Your task to perform on an android device: Search for Italian restaurants on Maps Image 0: 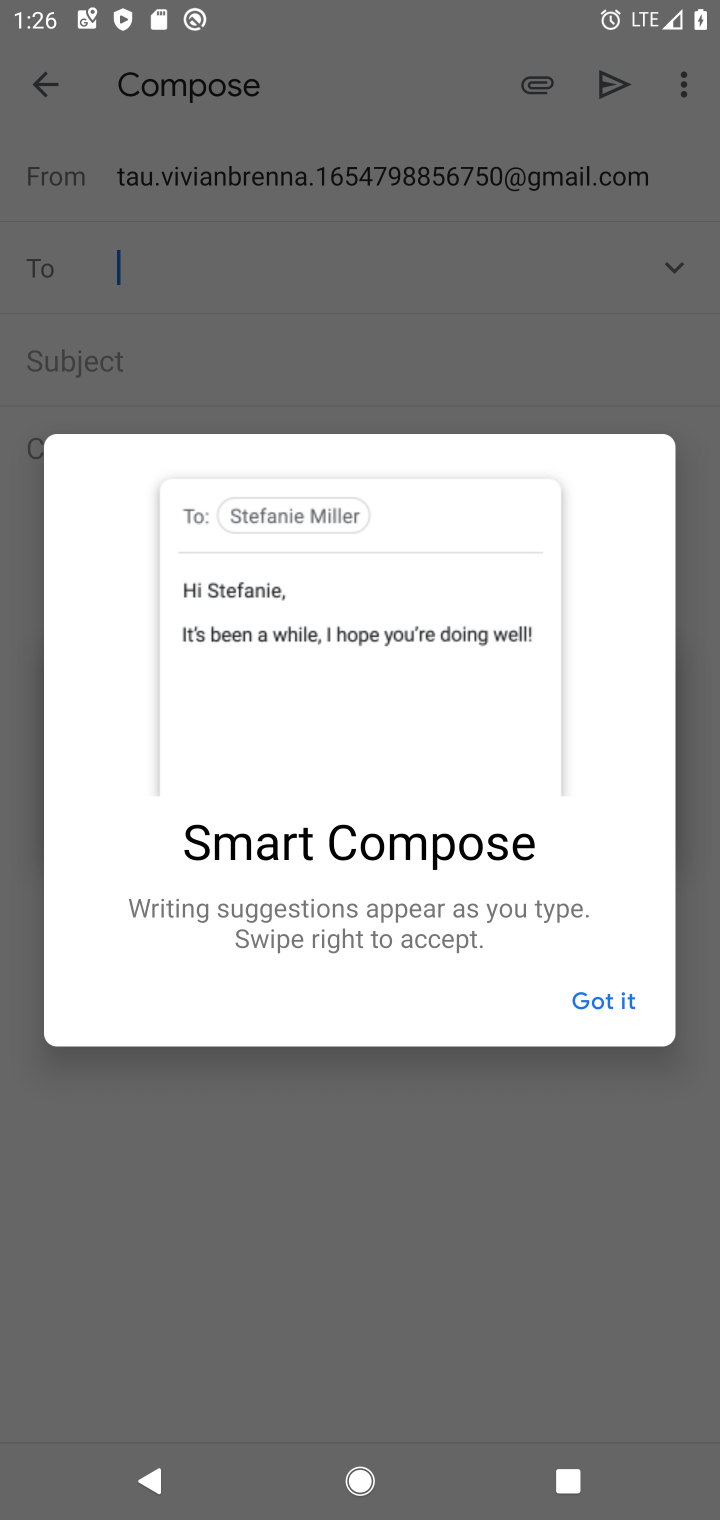
Step 0: press home button
Your task to perform on an android device: Search for Italian restaurants on Maps Image 1: 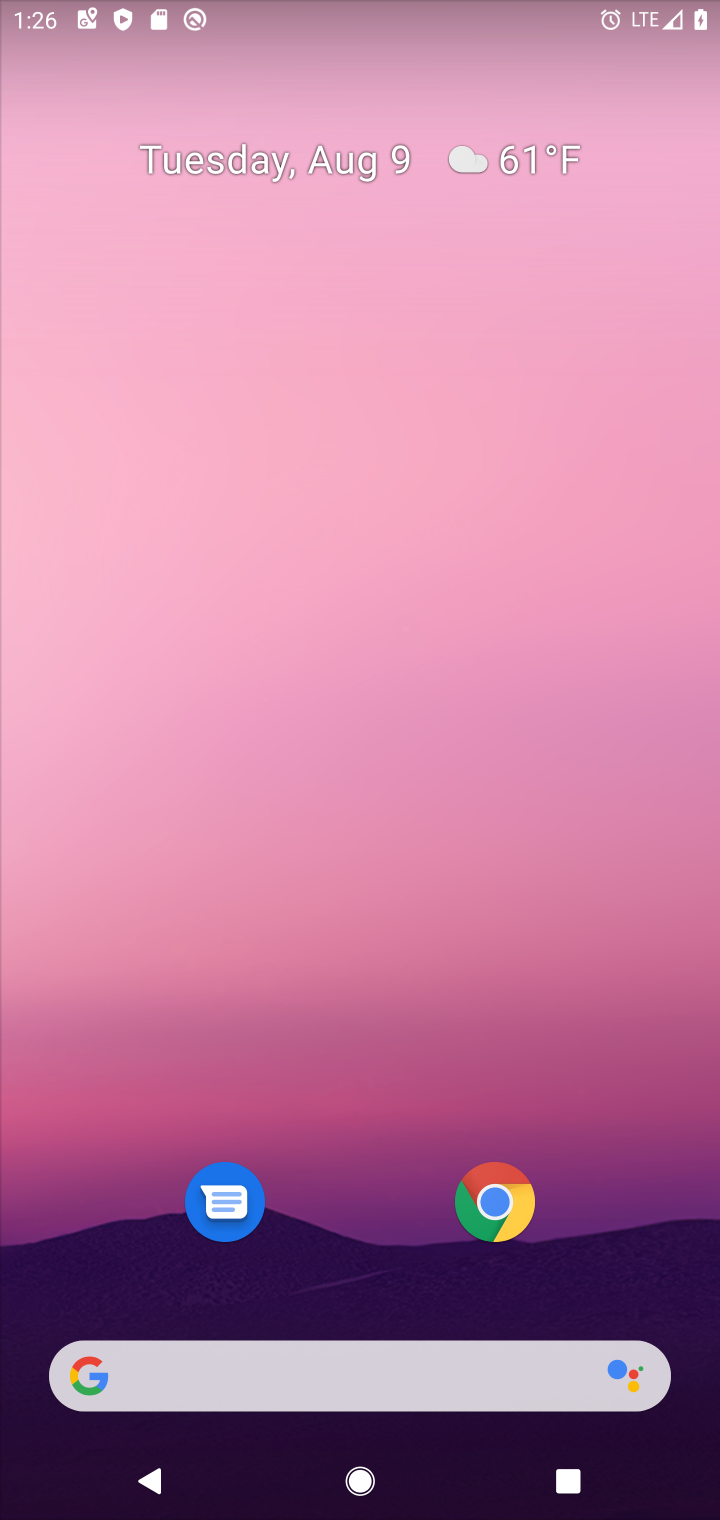
Step 1: drag from (338, 1212) to (356, 22)
Your task to perform on an android device: Search for Italian restaurants on Maps Image 2: 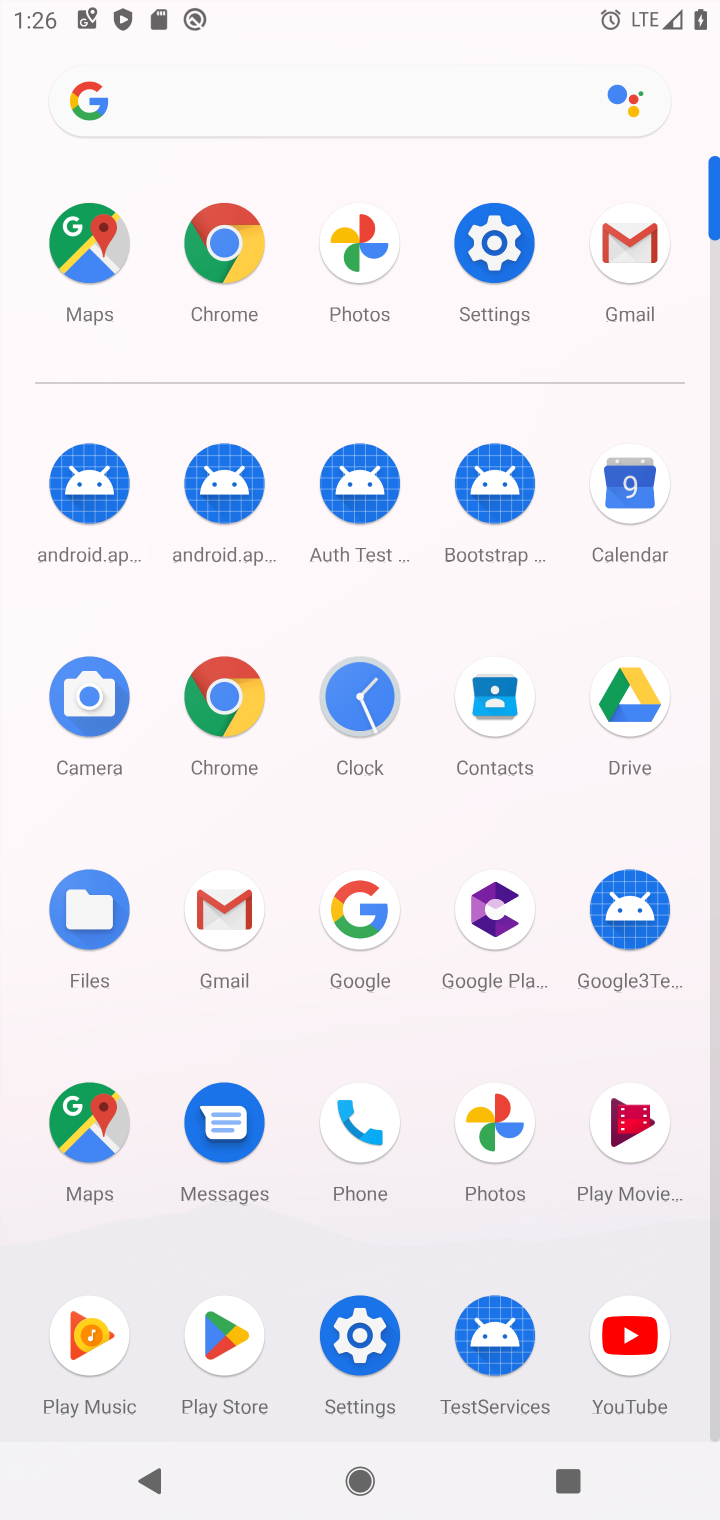
Step 2: click (70, 257)
Your task to perform on an android device: Search for Italian restaurants on Maps Image 3: 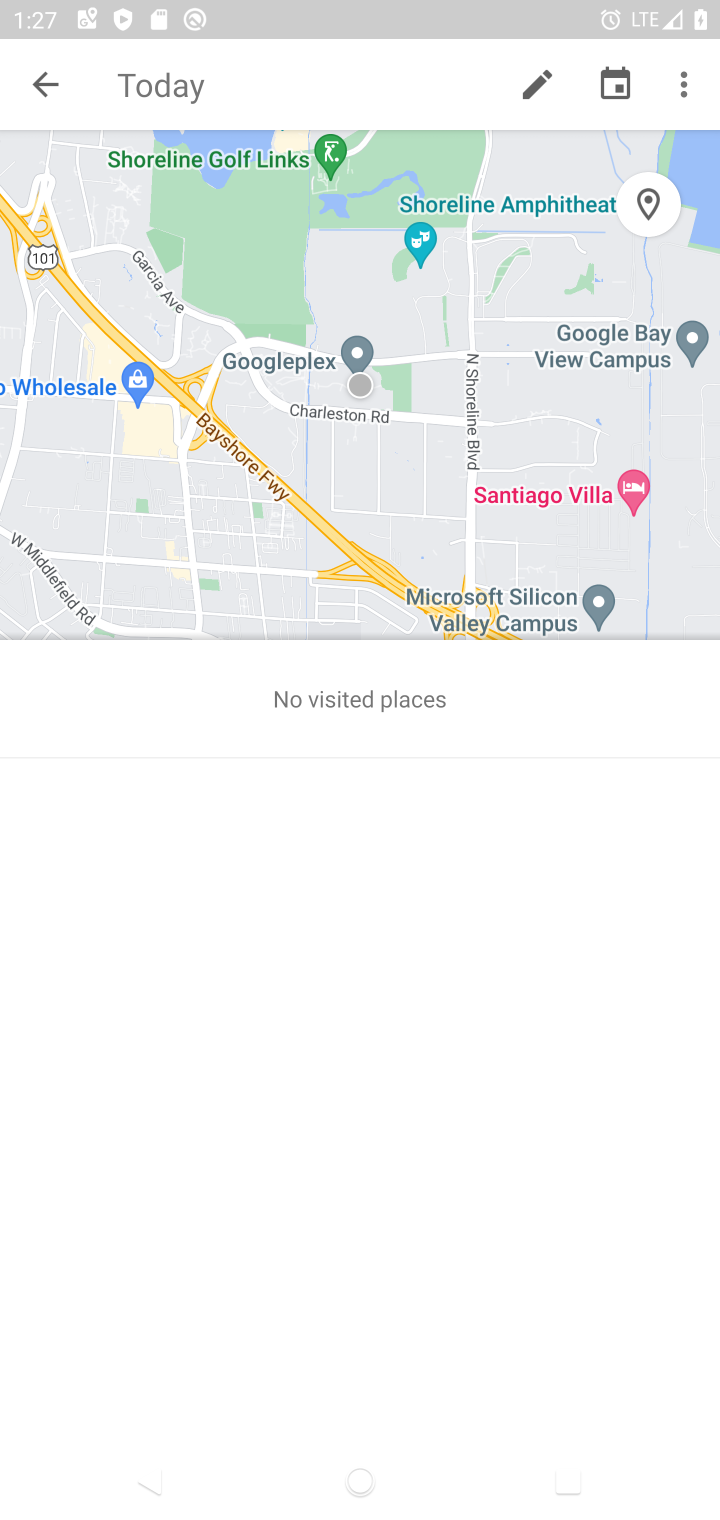
Step 3: click (42, 98)
Your task to perform on an android device: Search for Italian restaurants on Maps Image 4: 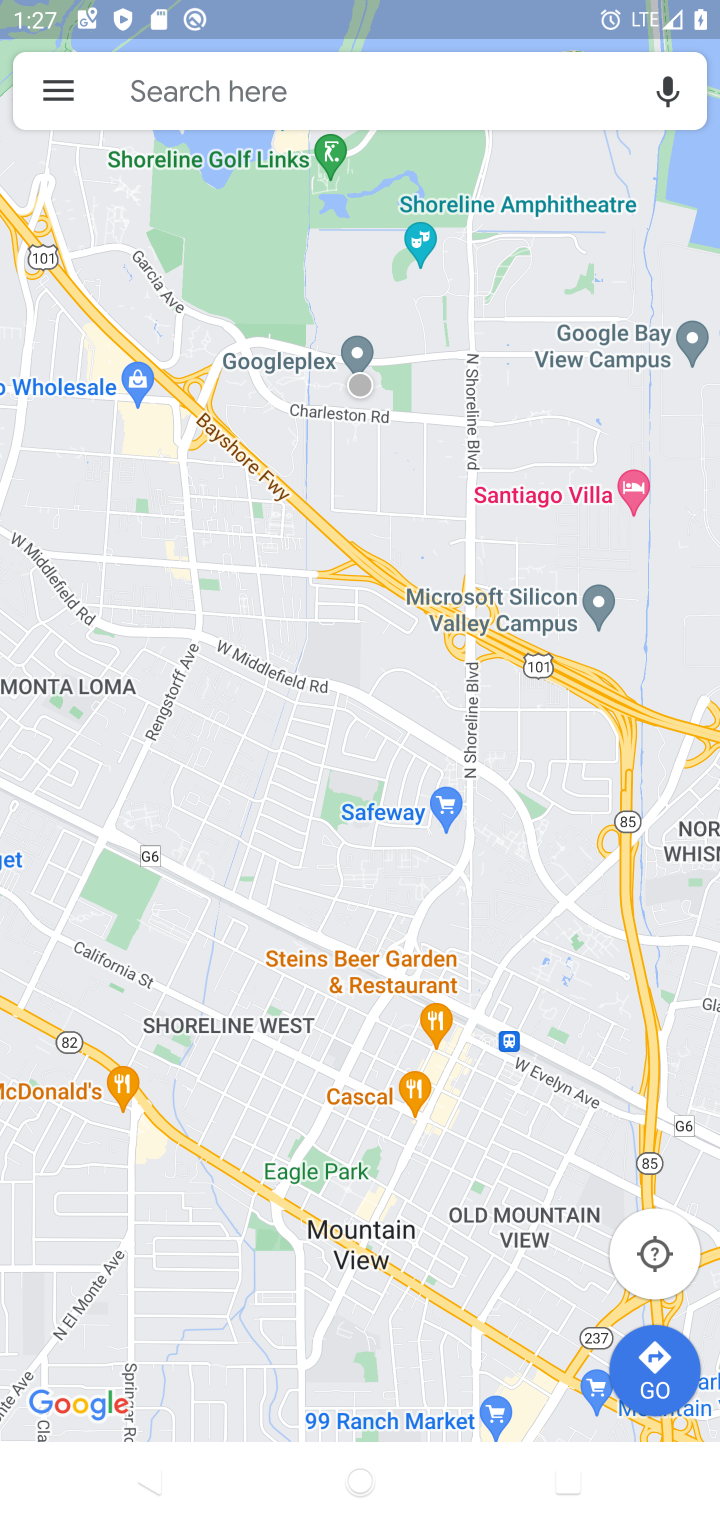
Step 4: click (303, 74)
Your task to perform on an android device: Search for Italian restaurants on Maps Image 5: 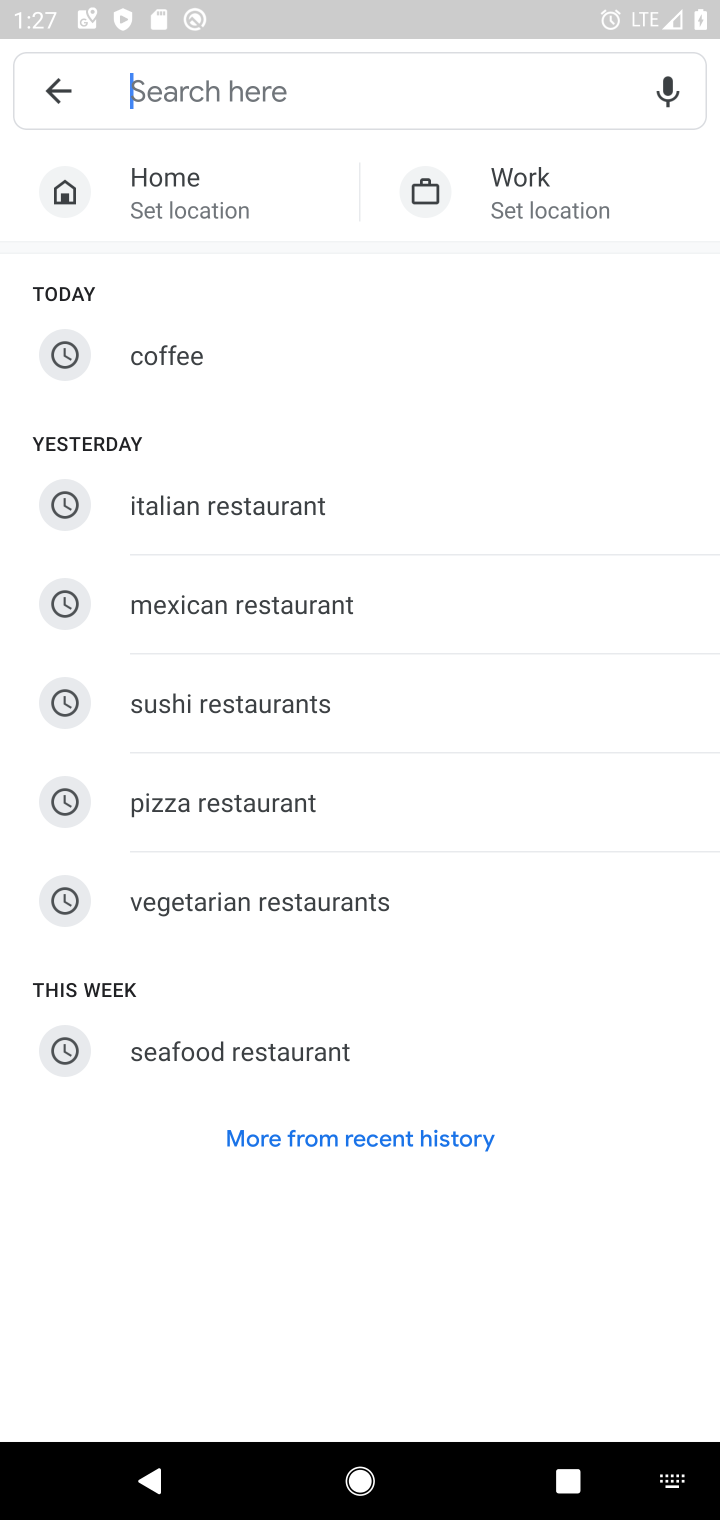
Step 5: click (246, 515)
Your task to perform on an android device: Search for Italian restaurants on Maps Image 6: 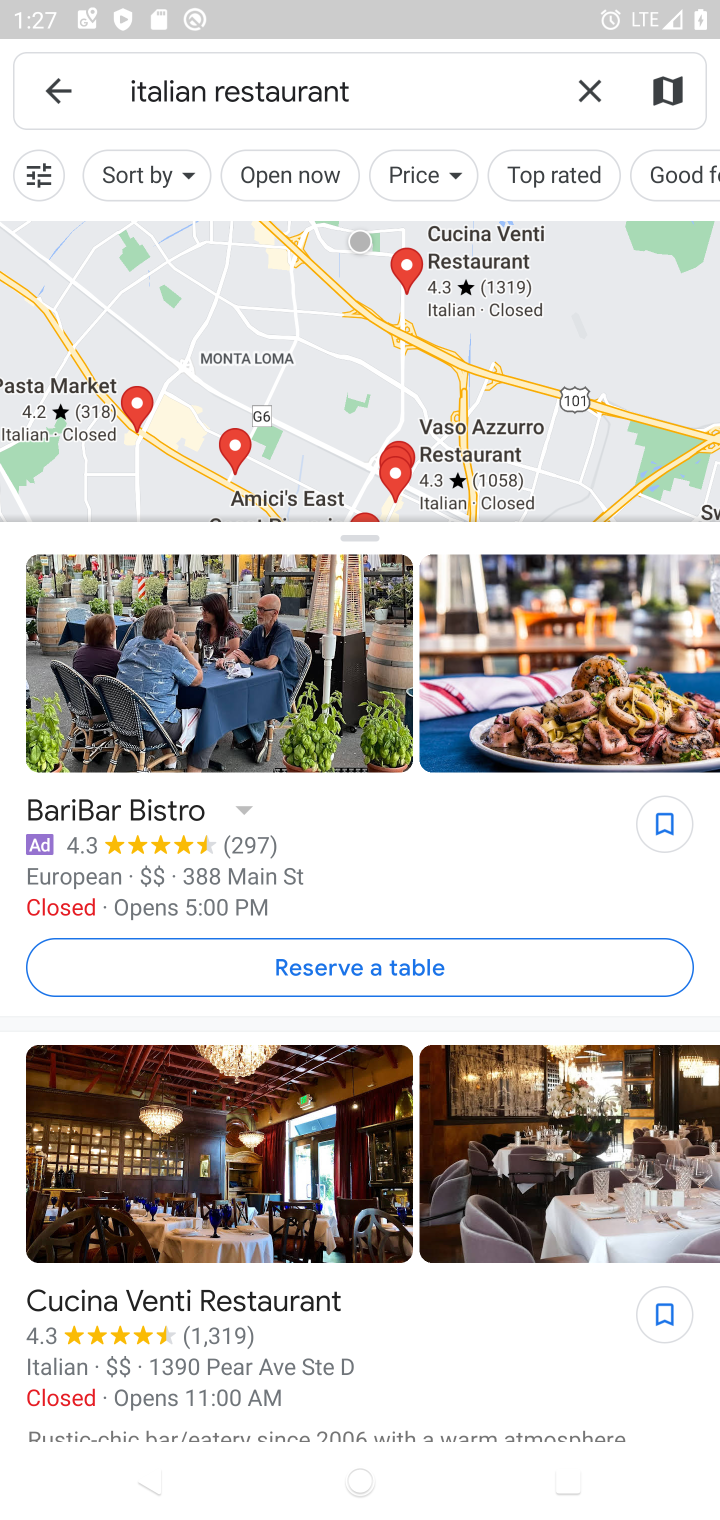
Step 6: task complete